Your task to perform on an android device: Open Chrome and go to the settings page Image 0: 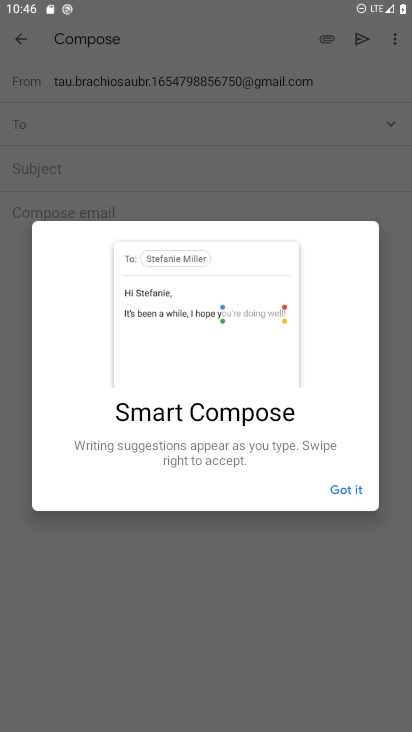
Step 0: press home button
Your task to perform on an android device: Open Chrome and go to the settings page Image 1: 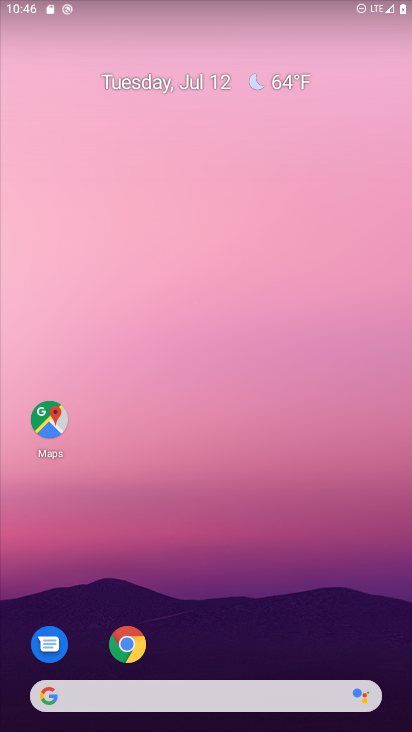
Step 1: drag from (263, 640) to (311, 229)
Your task to perform on an android device: Open Chrome and go to the settings page Image 2: 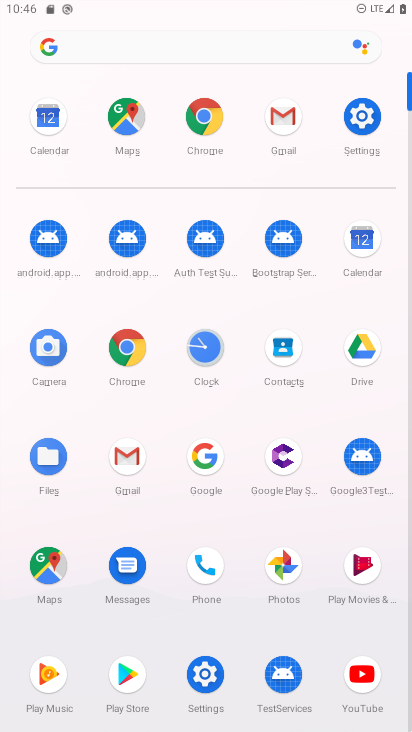
Step 2: click (192, 141)
Your task to perform on an android device: Open Chrome and go to the settings page Image 3: 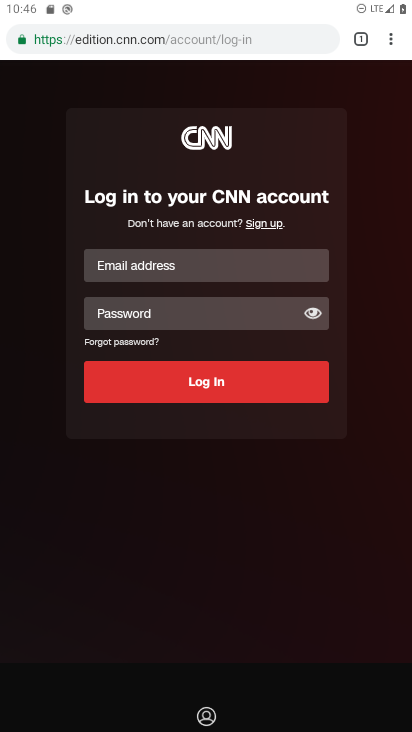
Step 3: click (395, 44)
Your task to perform on an android device: Open Chrome and go to the settings page Image 4: 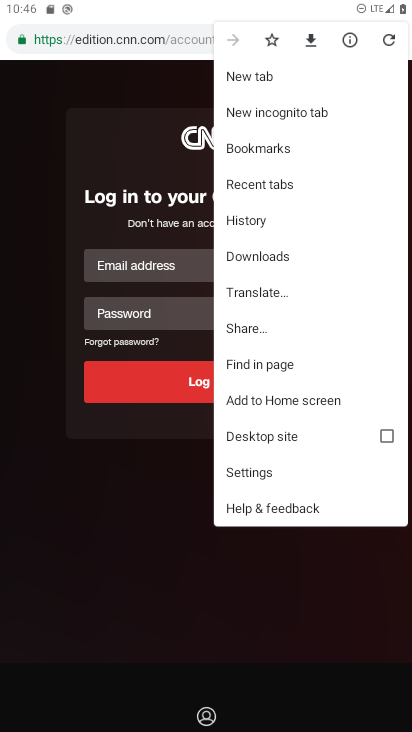
Step 4: click (267, 479)
Your task to perform on an android device: Open Chrome and go to the settings page Image 5: 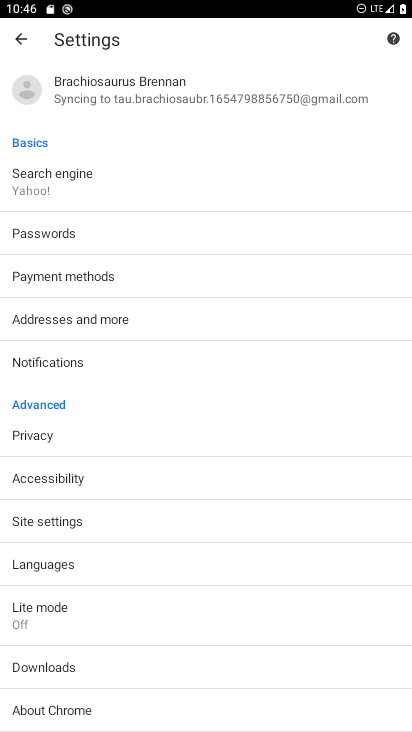
Step 5: task complete